Your task to perform on an android device: Open the calendar app, open the side menu, and click the "Day" option Image 0: 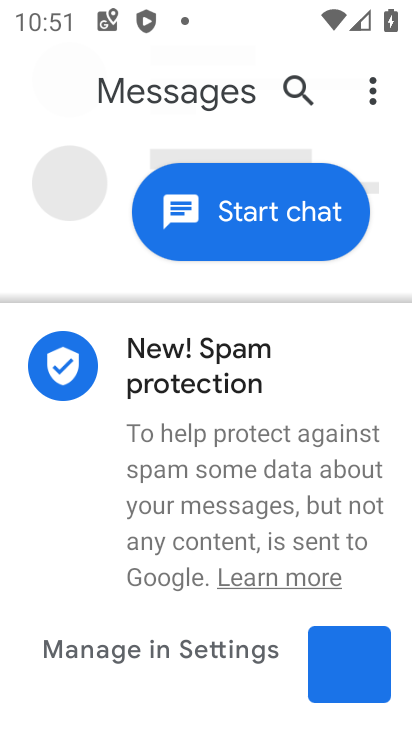
Step 0: press home button
Your task to perform on an android device: Open the calendar app, open the side menu, and click the "Day" option Image 1: 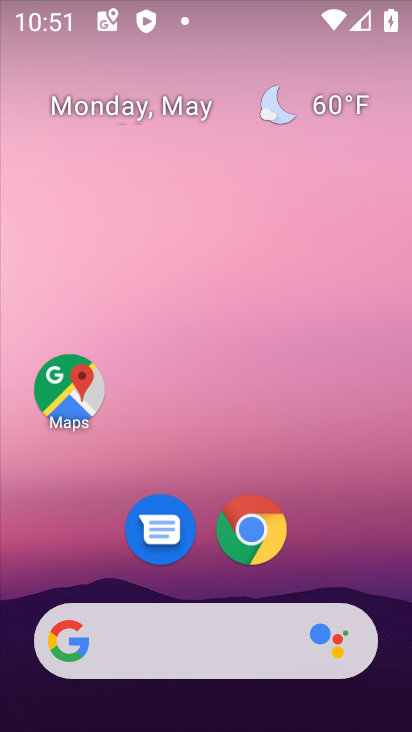
Step 1: drag from (335, 555) to (215, 10)
Your task to perform on an android device: Open the calendar app, open the side menu, and click the "Day" option Image 2: 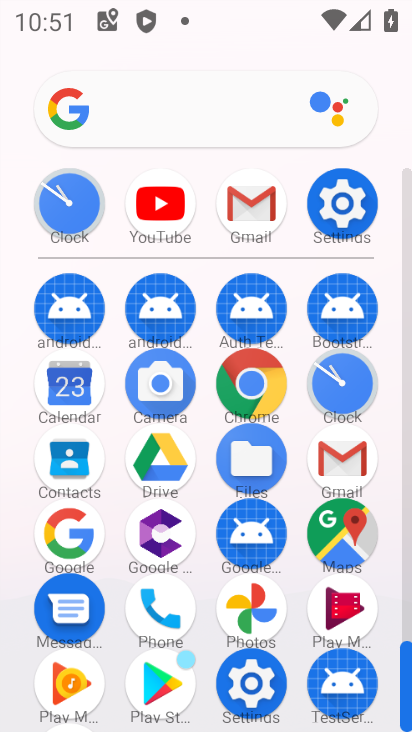
Step 2: click (77, 373)
Your task to perform on an android device: Open the calendar app, open the side menu, and click the "Day" option Image 3: 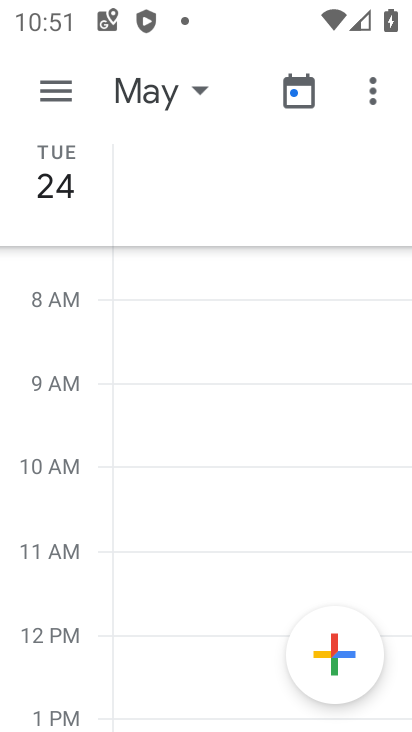
Step 3: click (48, 84)
Your task to perform on an android device: Open the calendar app, open the side menu, and click the "Day" option Image 4: 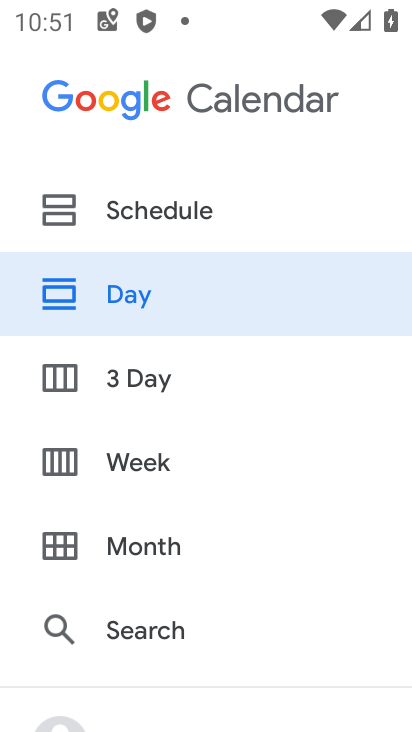
Step 4: click (137, 294)
Your task to perform on an android device: Open the calendar app, open the side menu, and click the "Day" option Image 5: 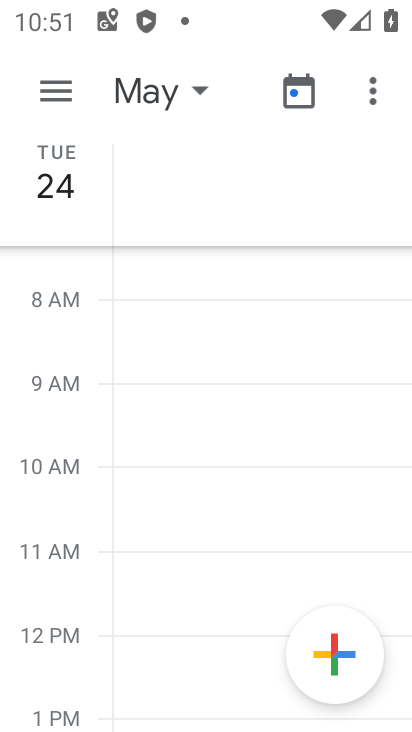
Step 5: task complete